Your task to perform on an android device: clear all cookies in the chrome app Image 0: 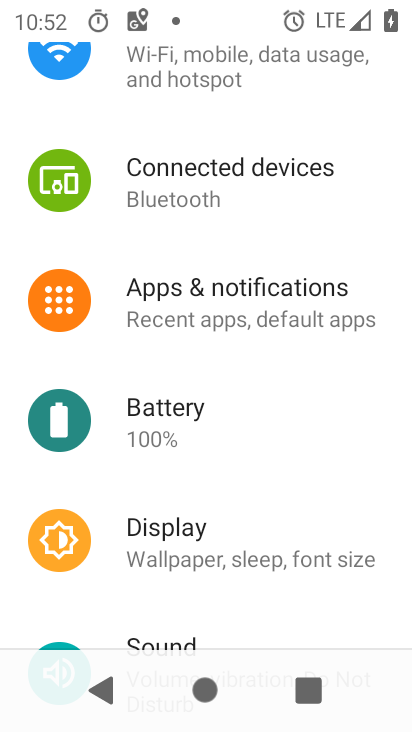
Step 0: press home button
Your task to perform on an android device: clear all cookies in the chrome app Image 1: 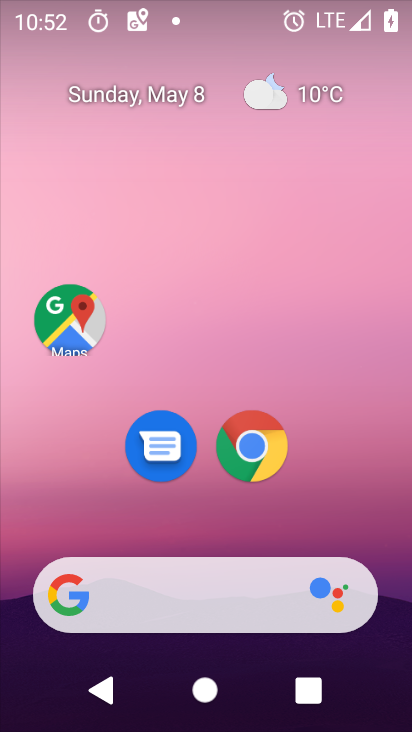
Step 1: click (261, 453)
Your task to perform on an android device: clear all cookies in the chrome app Image 2: 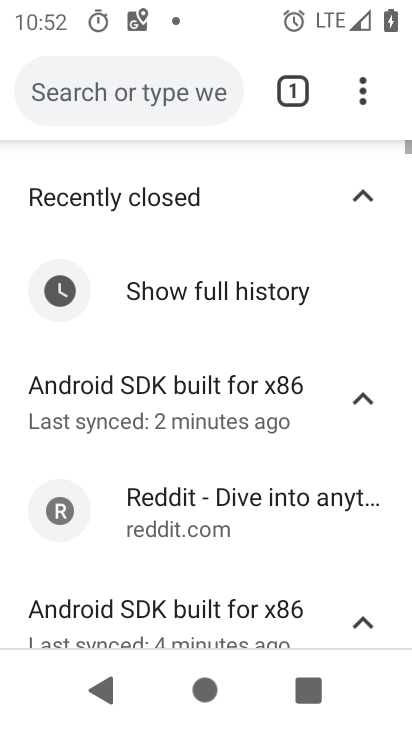
Step 2: click (360, 93)
Your task to perform on an android device: clear all cookies in the chrome app Image 3: 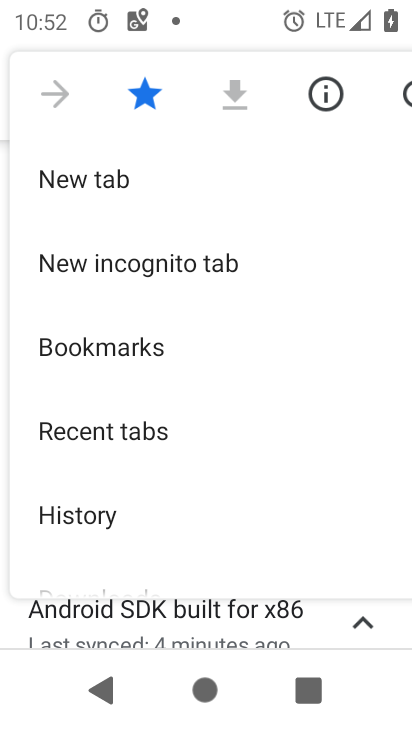
Step 3: drag from (177, 423) to (200, 94)
Your task to perform on an android device: clear all cookies in the chrome app Image 4: 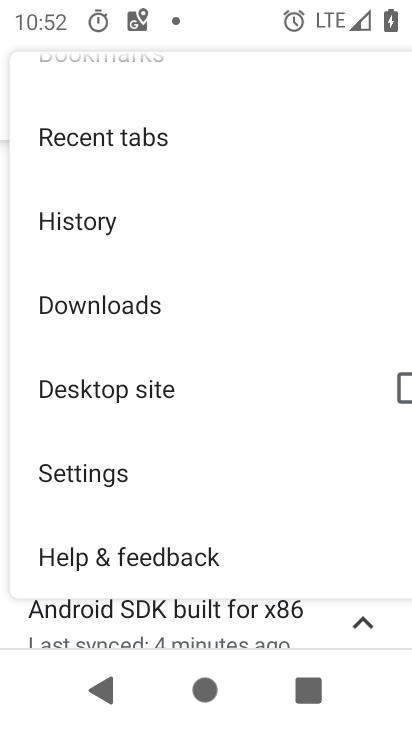
Step 4: click (114, 477)
Your task to perform on an android device: clear all cookies in the chrome app Image 5: 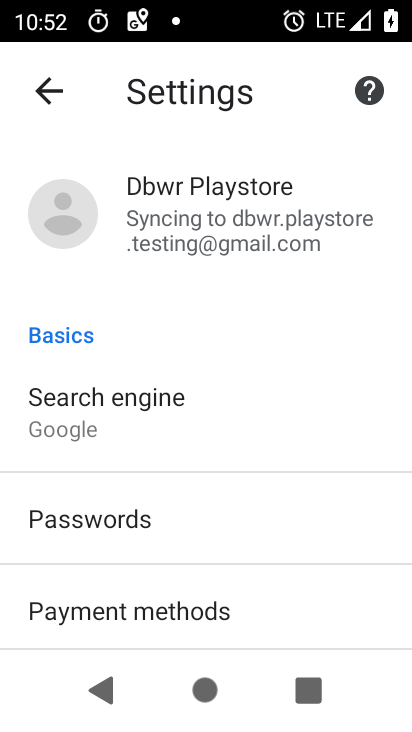
Step 5: drag from (236, 511) to (258, 120)
Your task to perform on an android device: clear all cookies in the chrome app Image 6: 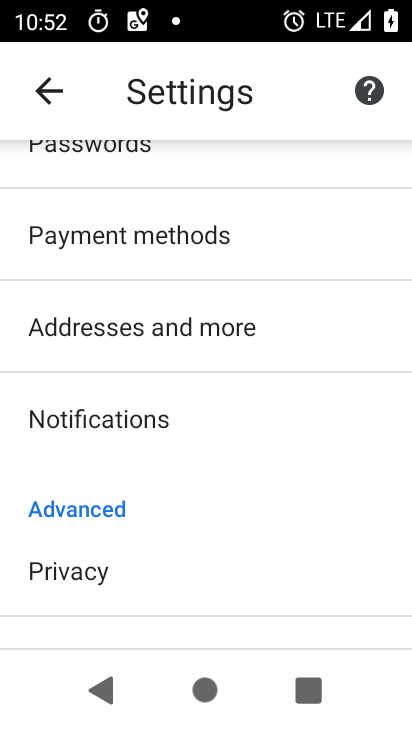
Step 6: drag from (272, 498) to (264, 220)
Your task to perform on an android device: clear all cookies in the chrome app Image 7: 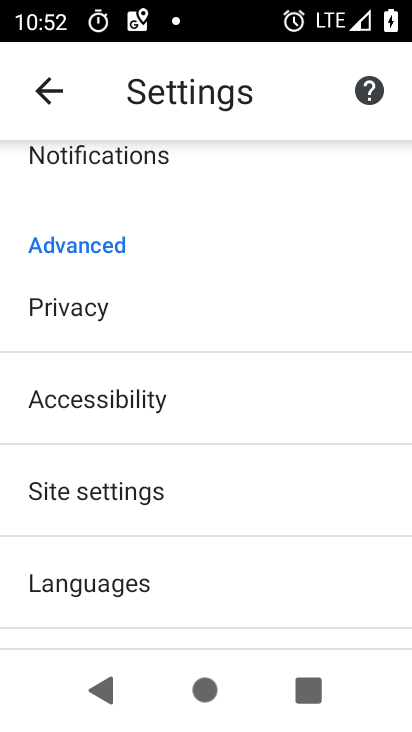
Step 7: click (72, 311)
Your task to perform on an android device: clear all cookies in the chrome app Image 8: 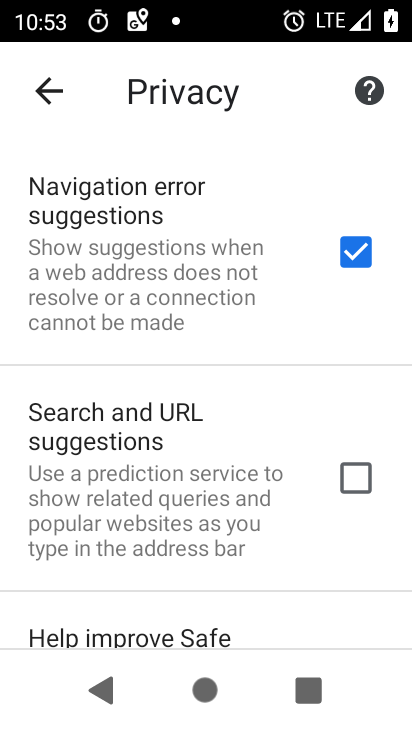
Step 8: drag from (156, 518) to (159, 139)
Your task to perform on an android device: clear all cookies in the chrome app Image 9: 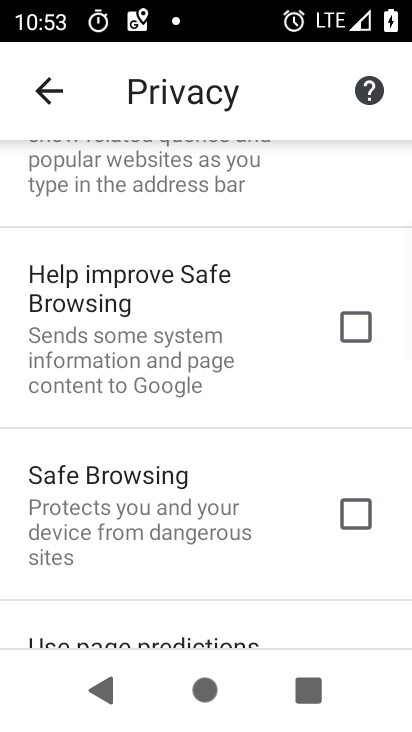
Step 9: drag from (144, 526) to (147, 154)
Your task to perform on an android device: clear all cookies in the chrome app Image 10: 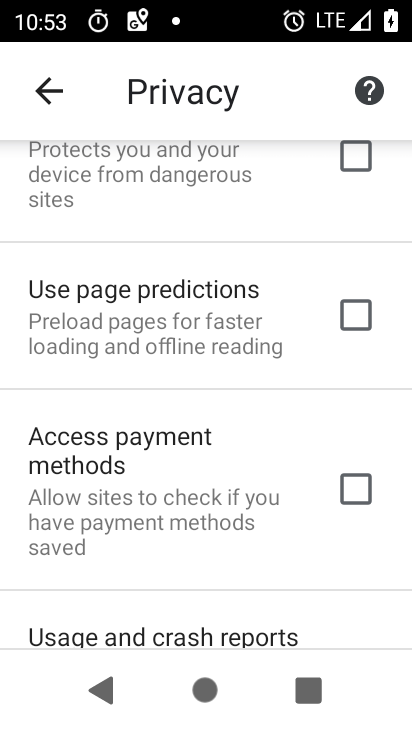
Step 10: drag from (126, 523) to (126, 183)
Your task to perform on an android device: clear all cookies in the chrome app Image 11: 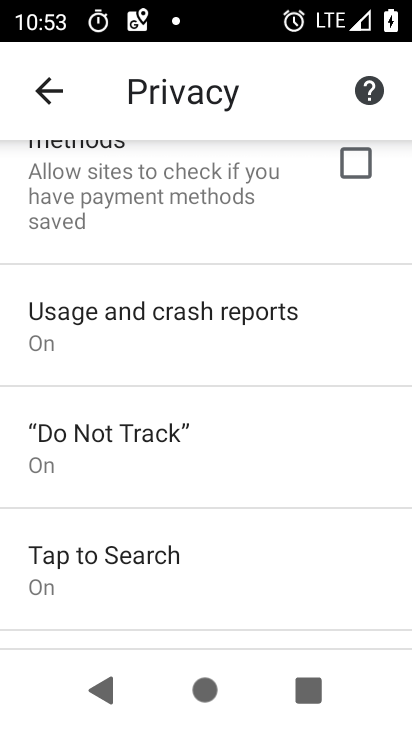
Step 11: drag from (104, 539) to (120, 159)
Your task to perform on an android device: clear all cookies in the chrome app Image 12: 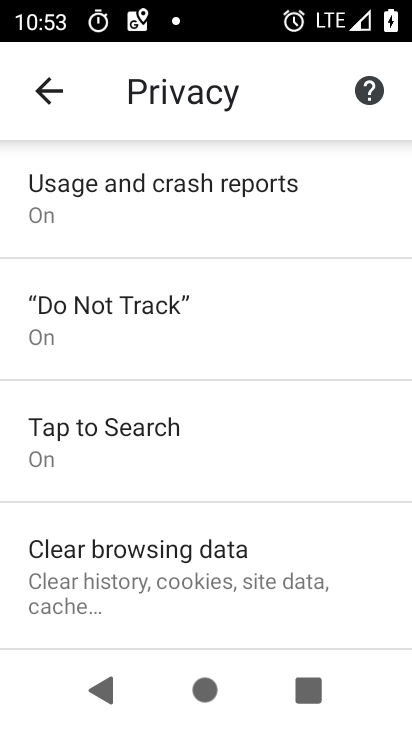
Step 12: click (98, 555)
Your task to perform on an android device: clear all cookies in the chrome app Image 13: 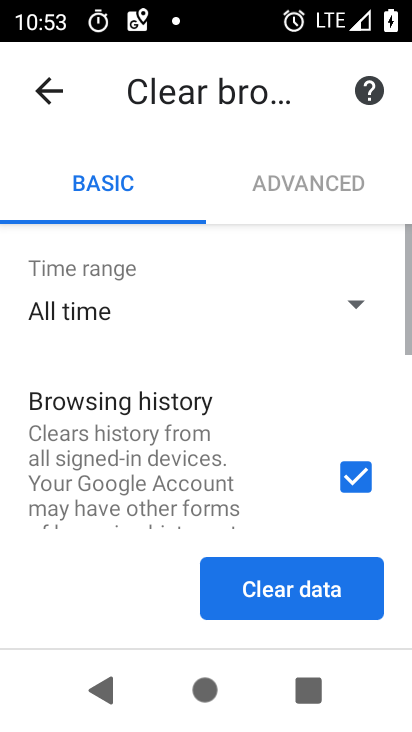
Step 13: drag from (164, 498) to (192, 275)
Your task to perform on an android device: clear all cookies in the chrome app Image 14: 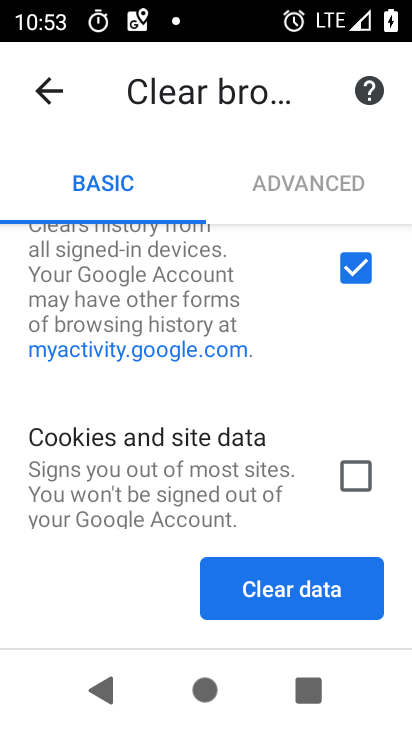
Step 14: click (343, 271)
Your task to perform on an android device: clear all cookies in the chrome app Image 15: 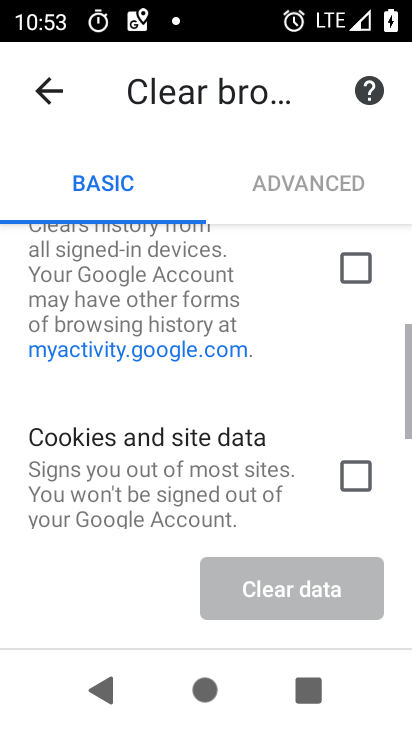
Step 15: click (353, 471)
Your task to perform on an android device: clear all cookies in the chrome app Image 16: 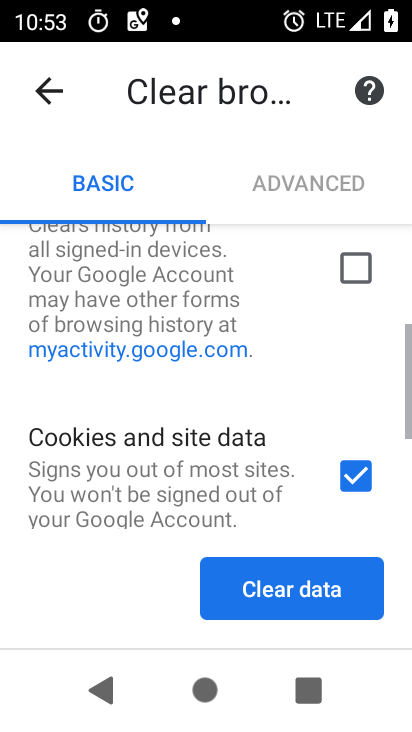
Step 16: drag from (162, 481) to (177, 210)
Your task to perform on an android device: clear all cookies in the chrome app Image 17: 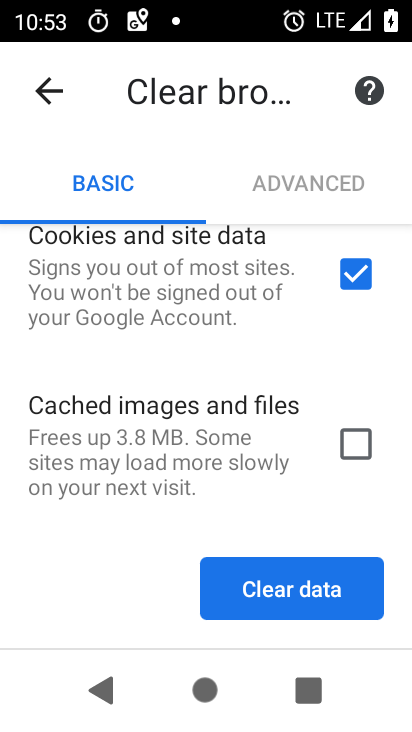
Step 17: click (279, 594)
Your task to perform on an android device: clear all cookies in the chrome app Image 18: 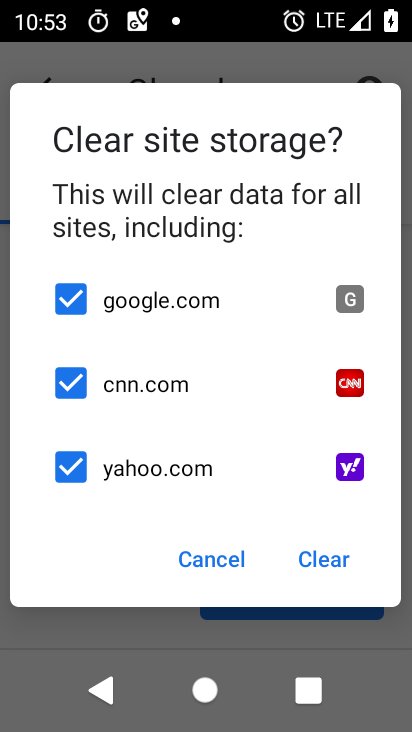
Step 18: click (339, 559)
Your task to perform on an android device: clear all cookies in the chrome app Image 19: 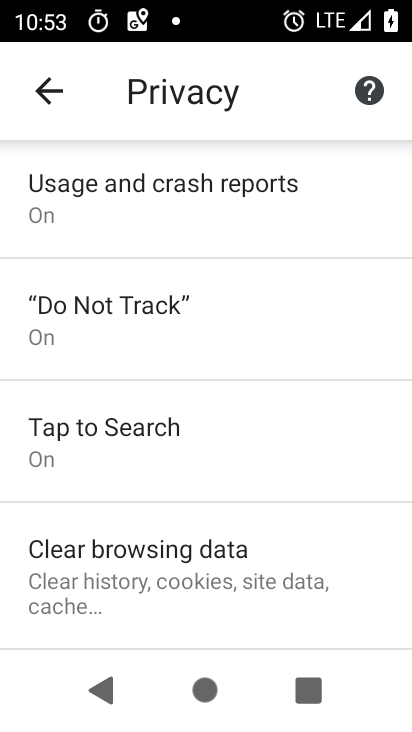
Step 19: task complete